Your task to perform on an android device: Open the calendar and show me this week's events? Image 0: 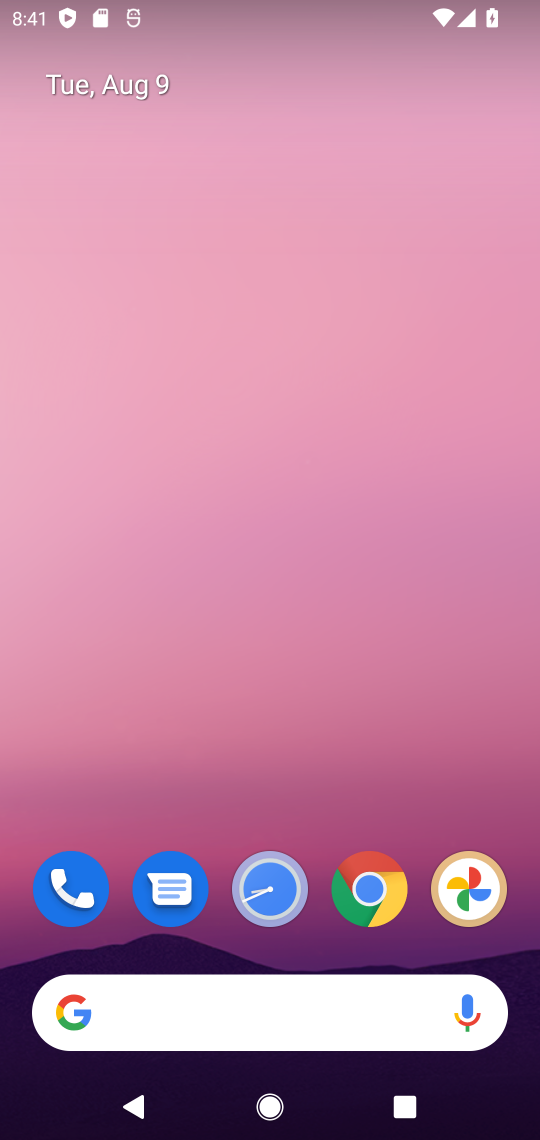
Step 0: drag from (216, 997) to (342, 61)
Your task to perform on an android device: Open the calendar and show me this week's events? Image 1: 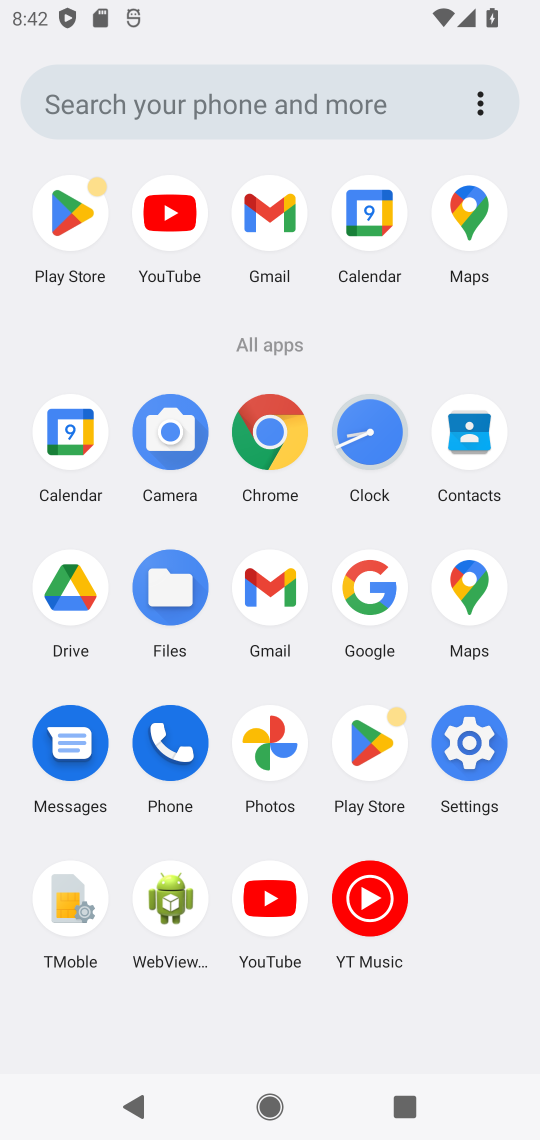
Step 1: click (67, 442)
Your task to perform on an android device: Open the calendar and show me this week's events? Image 2: 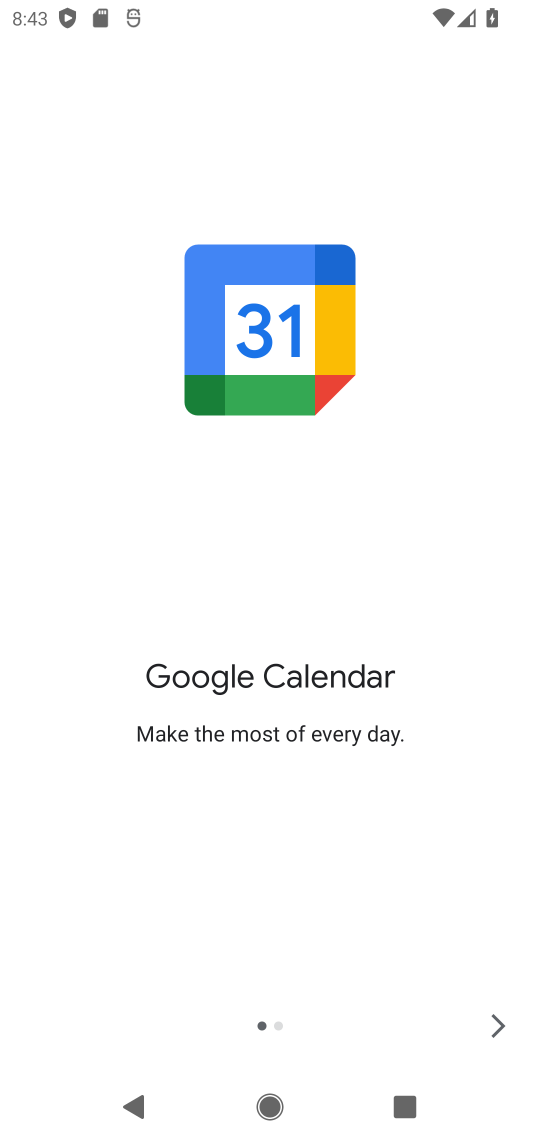
Step 2: click (497, 1041)
Your task to perform on an android device: Open the calendar and show me this week's events? Image 3: 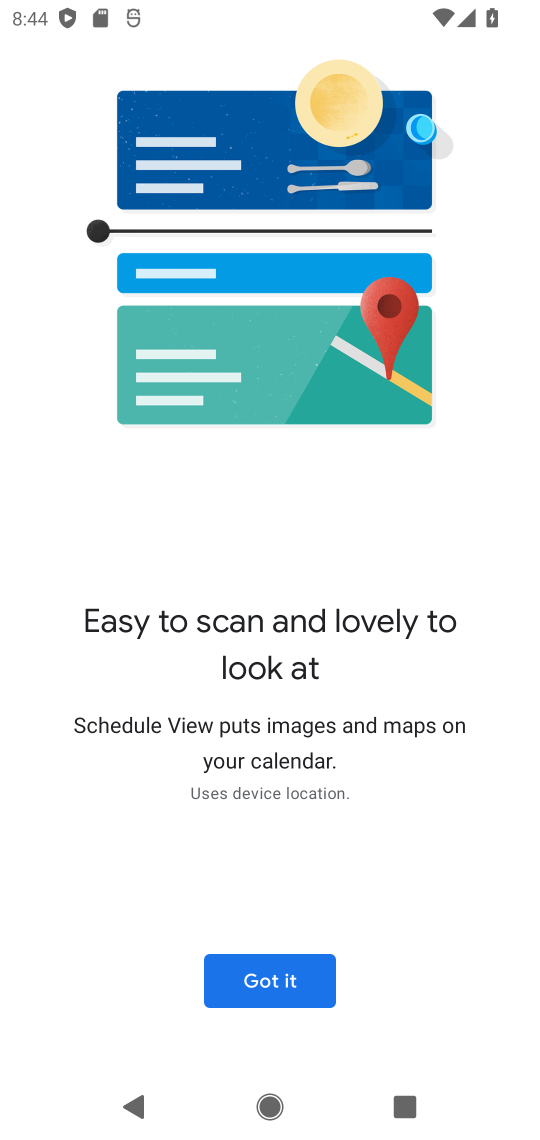
Step 3: click (256, 1001)
Your task to perform on an android device: Open the calendar and show me this week's events? Image 4: 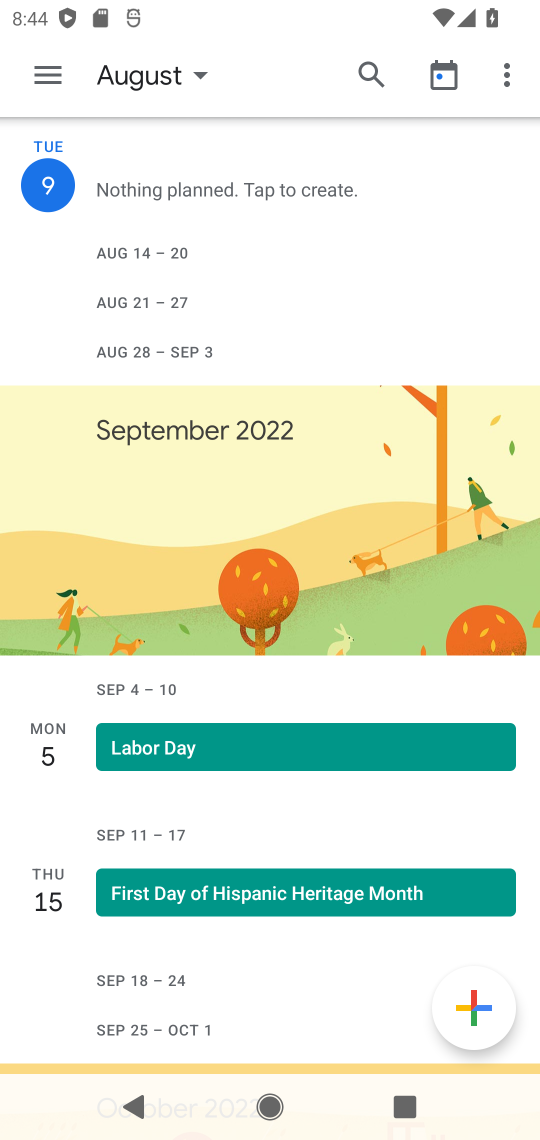
Step 4: click (184, 86)
Your task to perform on an android device: Open the calendar and show me this week's events? Image 5: 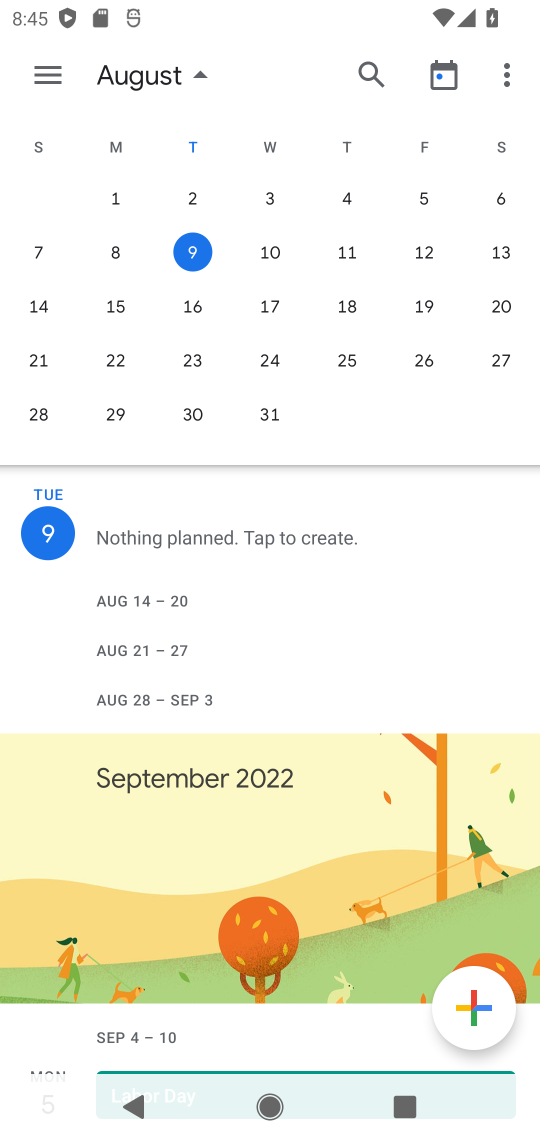
Step 5: task complete